Your task to perform on an android device: Go to CNN.com Image 0: 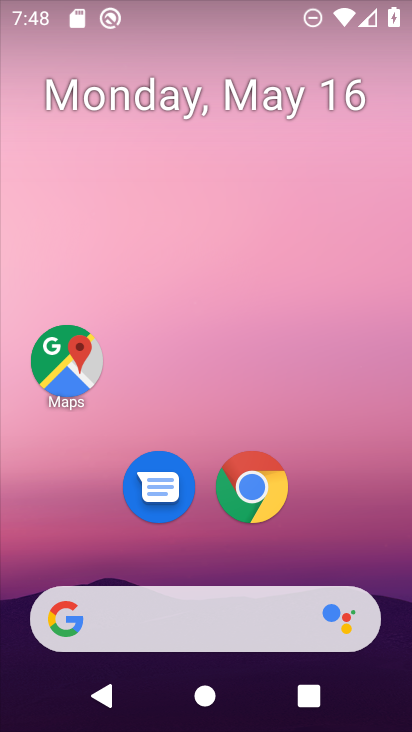
Step 0: click (195, 620)
Your task to perform on an android device: Go to CNN.com Image 1: 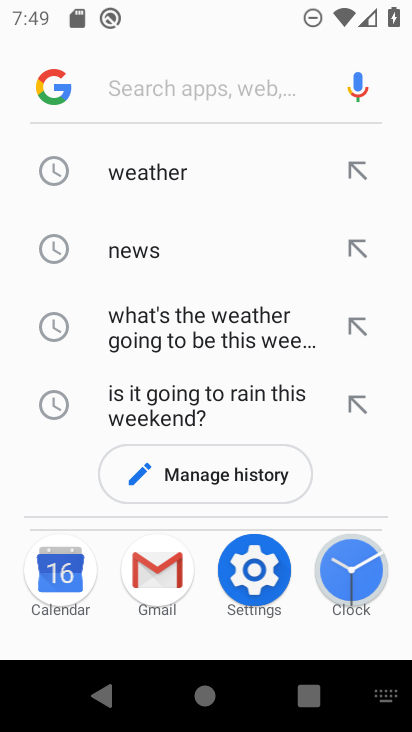
Step 1: type "cnn.com"
Your task to perform on an android device: Go to CNN.com Image 2: 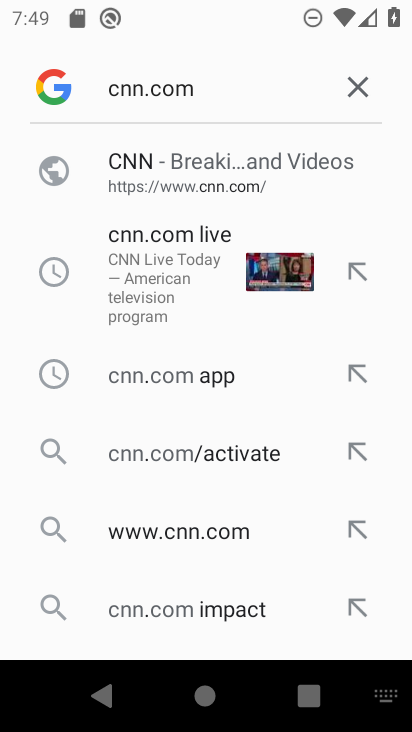
Step 2: click (107, 174)
Your task to perform on an android device: Go to CNN.com Image 3: 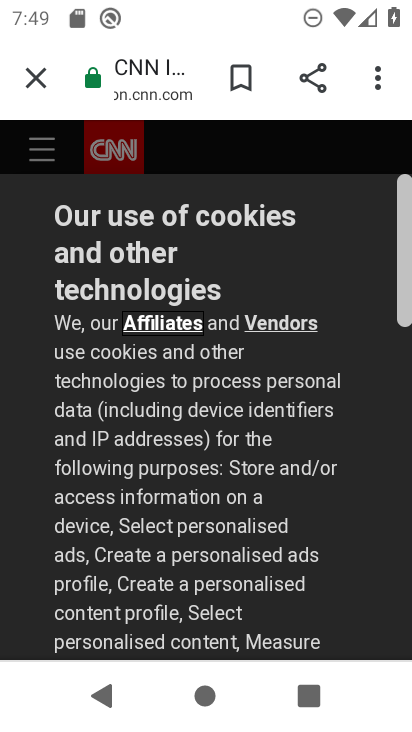
Step 3: task complete